Your task to perform on an android device: turn on wifi Image 0: 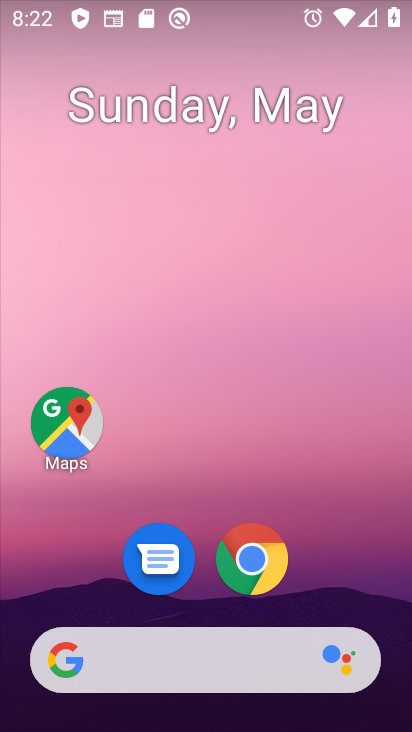
Step 0: drag from (180, 16) to (112, 433)
Your task to perform on an android device: turn on wifi Image 1: 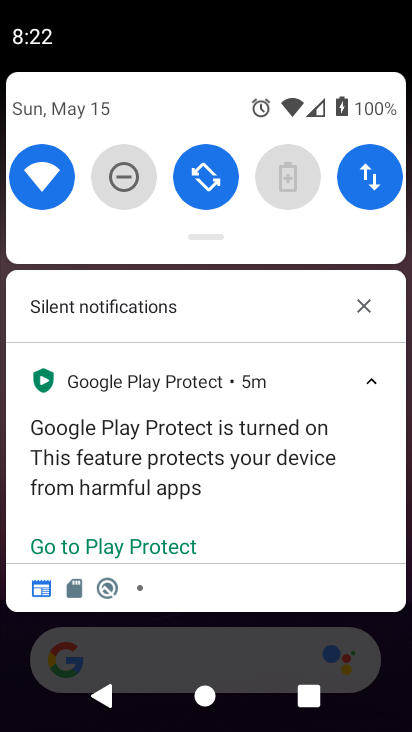
Step 1: click (45, 178)
Your task to perform on an android device: turn on wifi Image 2: 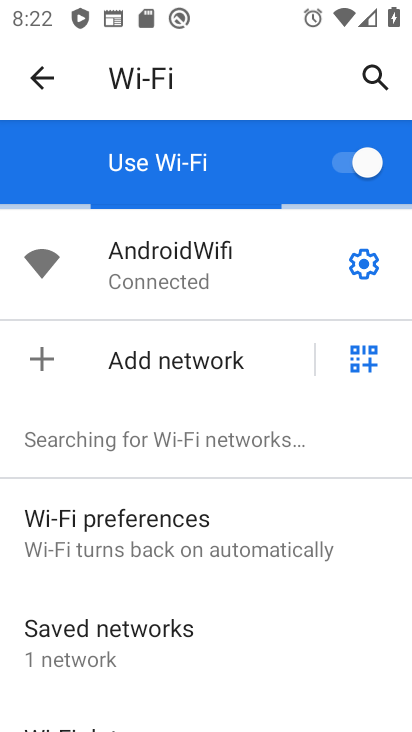
Step 2: task complete